Your task to perform on an android device: stop showing notifications on the lock screen Image 0: 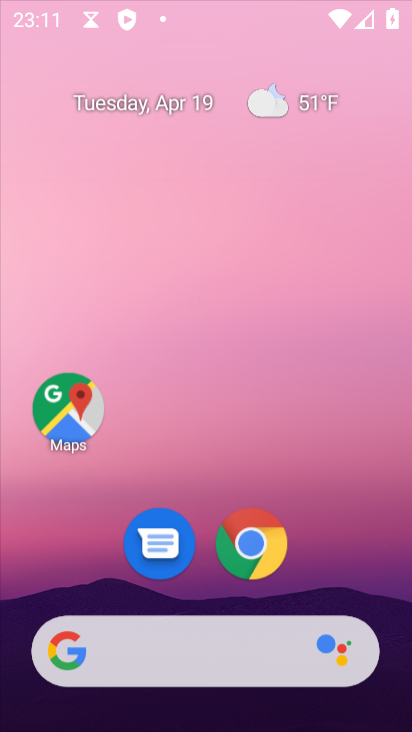
Step 0: click (331, 50)
Your task to perform on an android device: stop showing notifications on the lock screen Image 1: 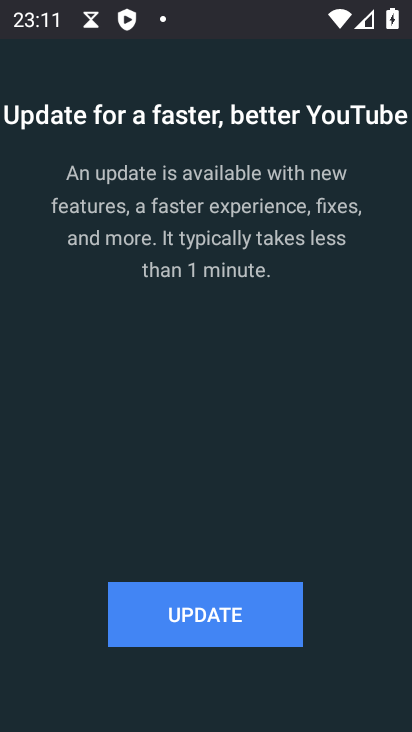
Step 1: press home button
Your task to perform on an android device: stop showing notifications on the lock screen Image 2: 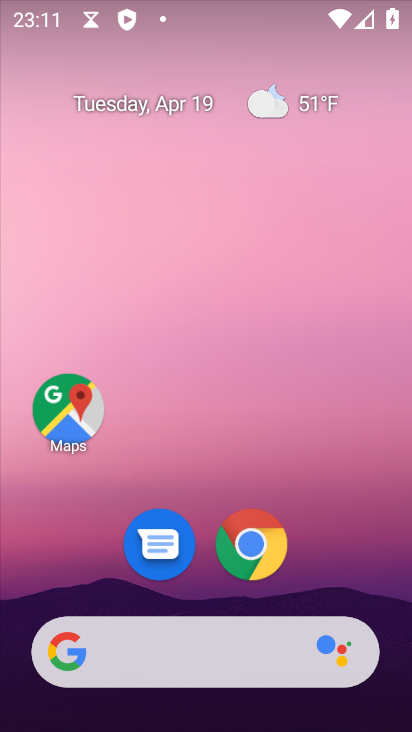
Step 2: drag from (312, 581) to (324, 10)
Your task to perform on an android device: stop showing notifications on the lock screen Image 3: 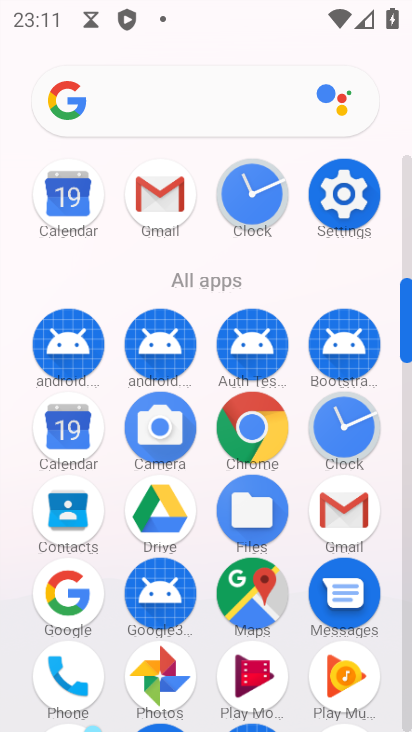
Step 3: click (359, 206)
Your task to perform on an android device: stop showing notifications on the lock screen Image 4: 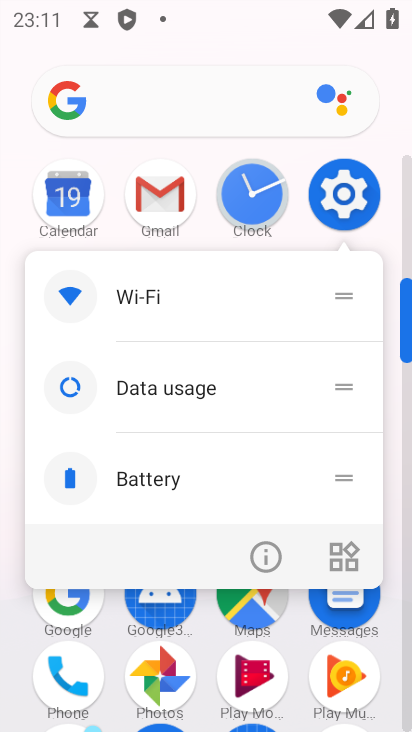
Step 4: click (340, 202)
Your task to perform on an android device: stop showing notifications on the lock screen Image 5: 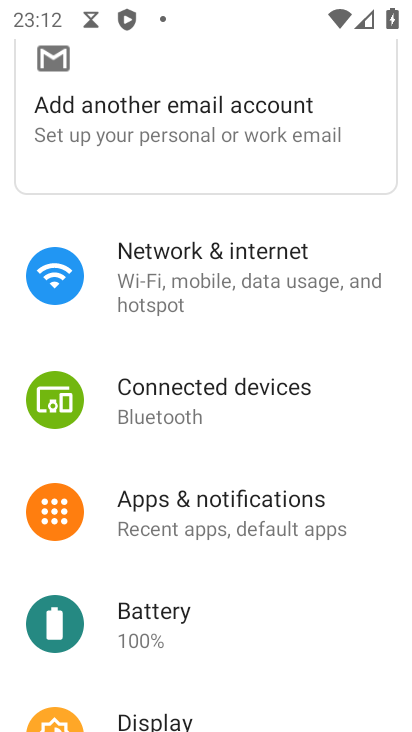
Step 5: click (179, 544)
Your task to perform on an android device: stop showing notifications on the lock screen Image 6: 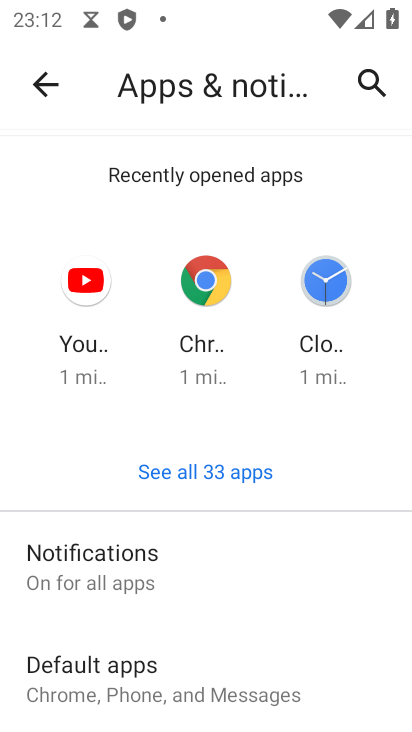
Step 6: drag from (174, 645) to (168, 555)
Your task to perform on an android device: stop showing notifications on the lock screen Image 7: 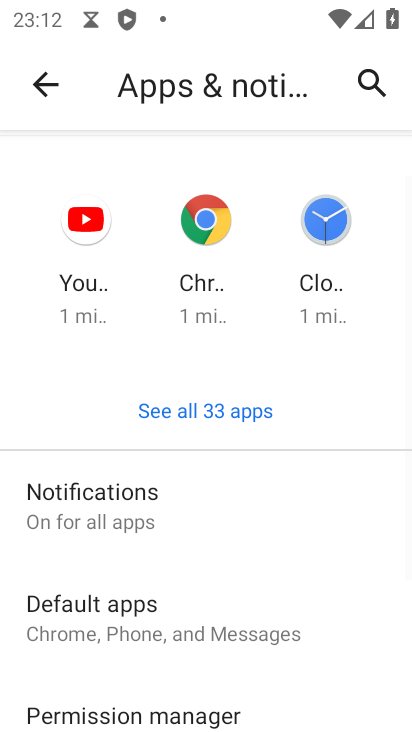
Step 7: click (170, 538)
Your task to perform on an android device: stop showing notifications on the lock screen Image 8: 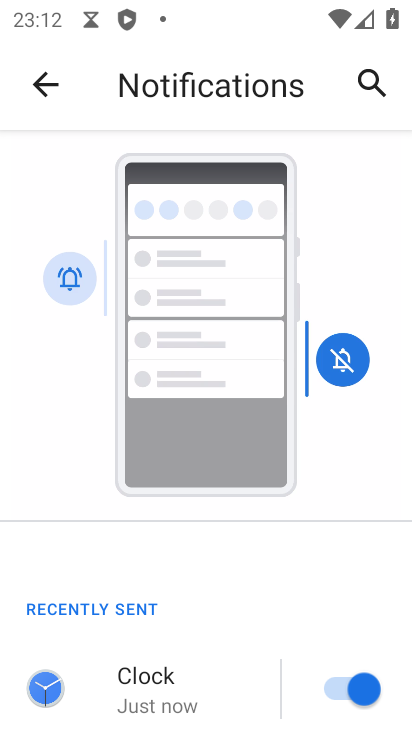
Step 8: drag from (192, 599) to (233, 336)
Your task to perform on an android device: stop showing notifications on the lock screen Image 9: 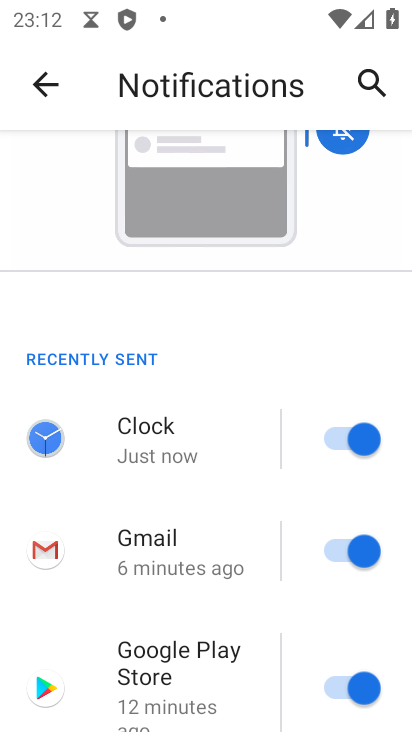
Step 9: drag from (203, 573) to (230, 336)
Your task to perform on an android device: stop showing notifications on the lock screen Image 10: 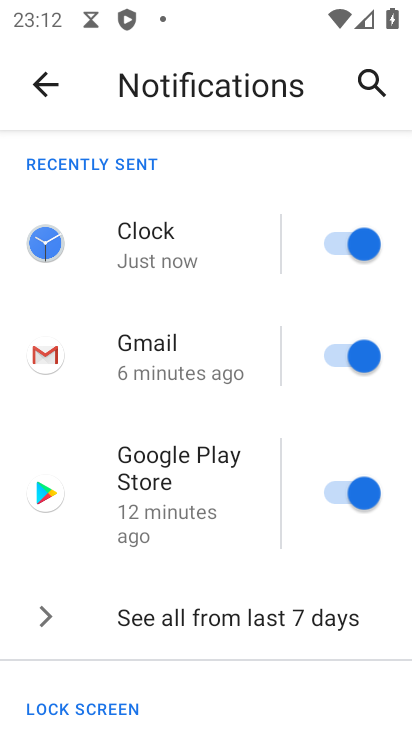
Step 10: drag from (224, 615) to (253, 321)
Your task to perform on an android device: stop showing notifications on the lock screen Image 11: 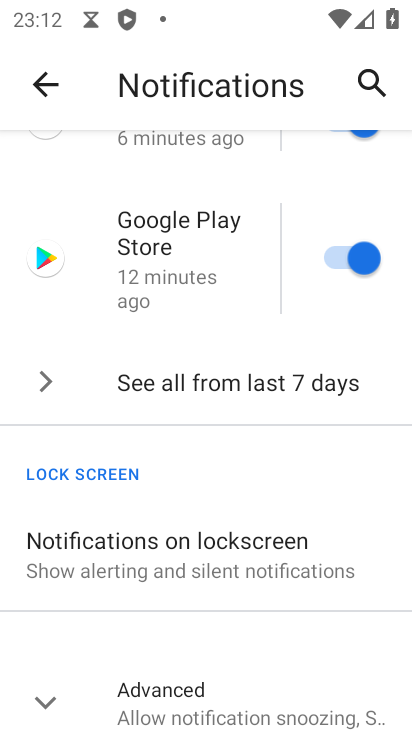
Step 11: click (220, 574)
Your task to perform on an android device: stop showing notifications on the lock screen Image 12: 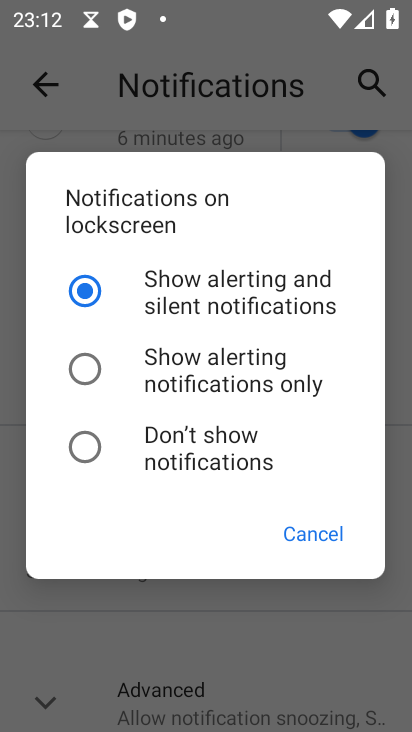
Step 12: click (226, 447)
Your task to perform on an android device: stop showing notifications on the lock screen Image 13: 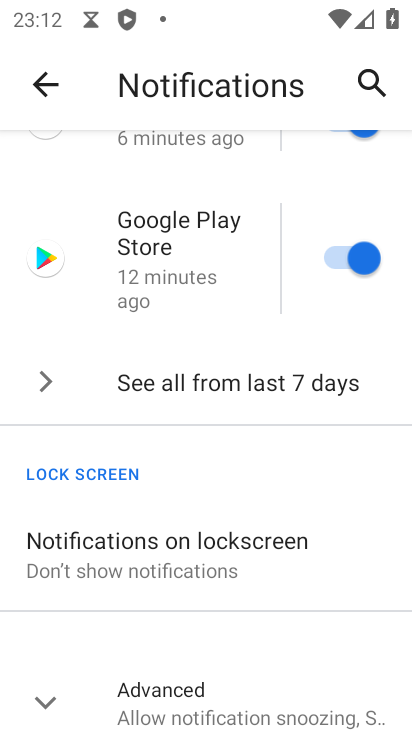
Step 13: task complete